Your task to perform on an android device: What's the news in Thailand? Image 0: 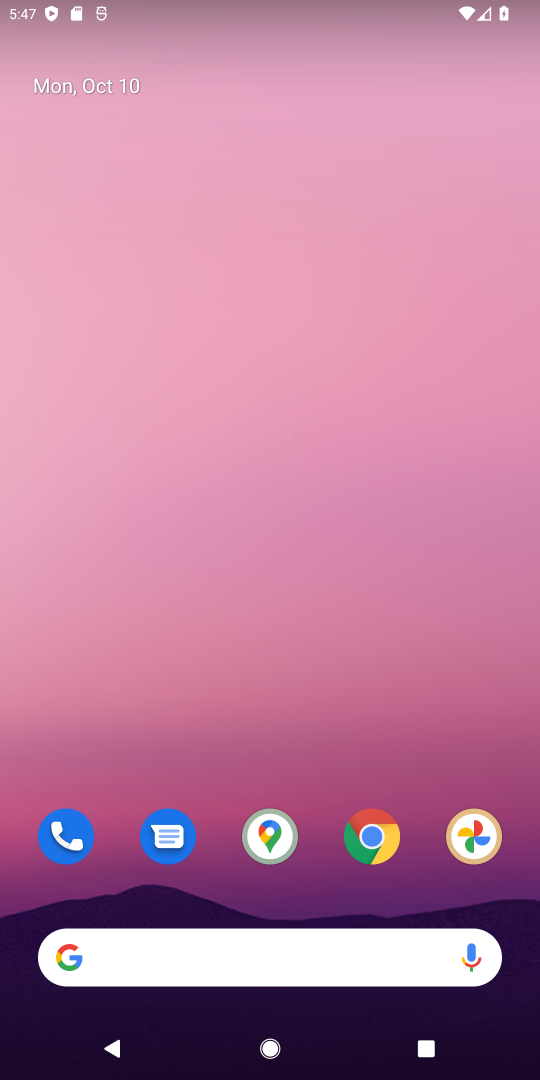
Step 0: click (369, 835)
Your task to perform on an android device: What's the news in Thailand? Image 1: 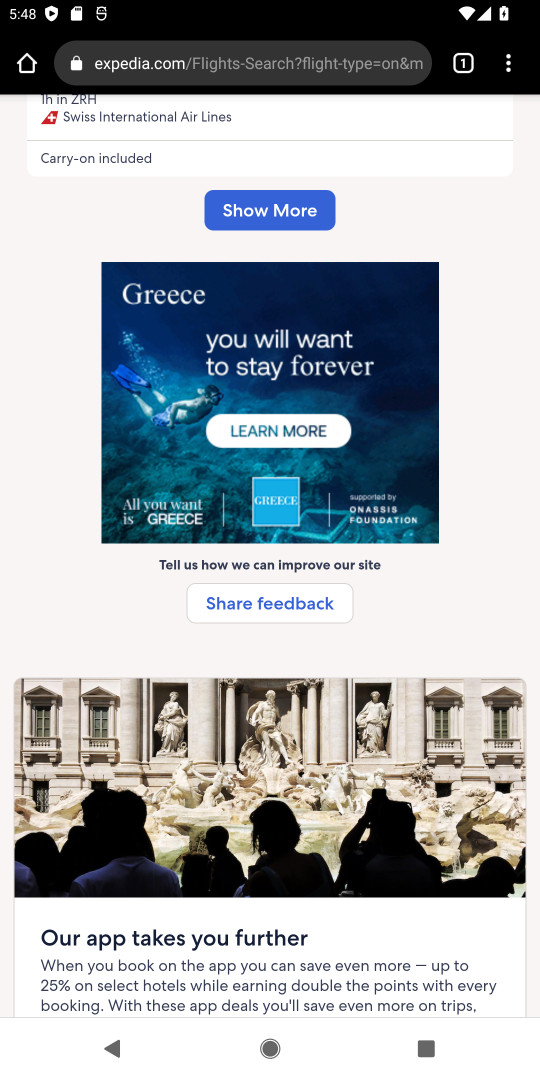
Step 1: click (236, 49)
Your task to perform on an android device: What's the news in Thailand? Image 2: 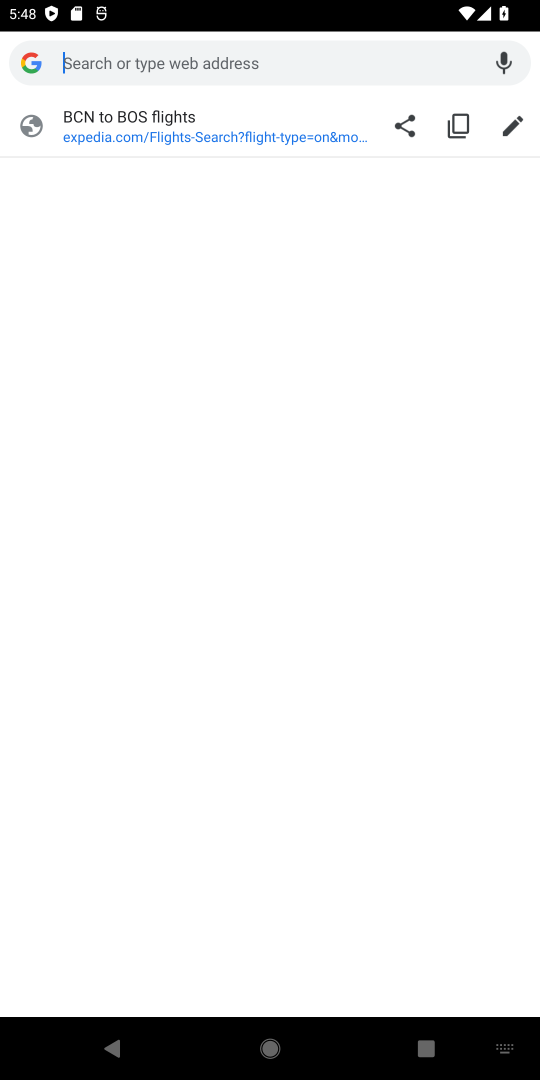
Step 2: type "news in thailand"
Your task to perform on an android device: What's the news in Thailand? Image 3: 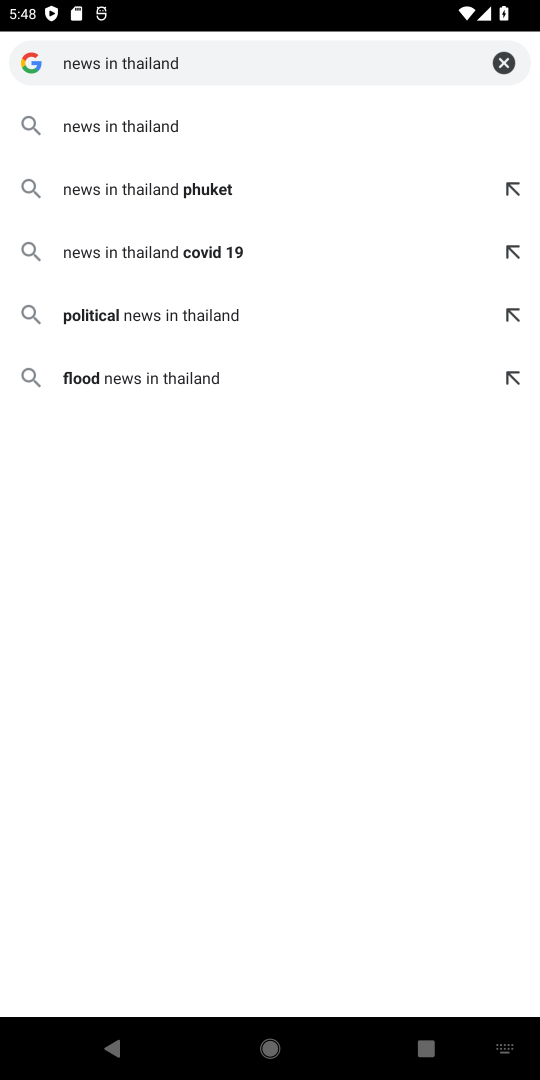
Step 3: click (118, 127)
Your task to perform on an android device: What's the news in Thailand? Image 4: 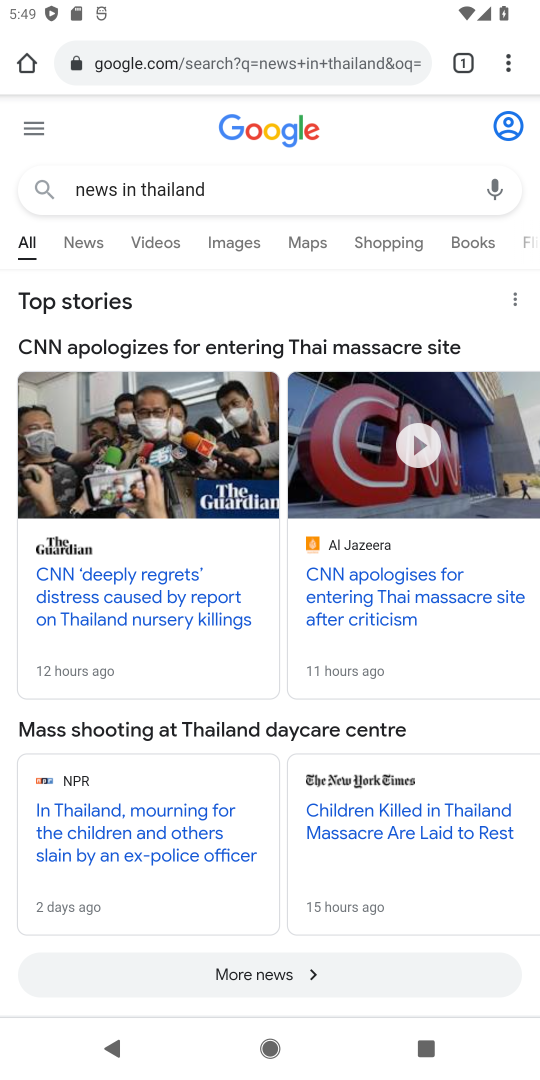
Step 4: drag from (287, 872) to (286, 176)
Your task to perform on an android device: What's the news in Thailand? Image 5: 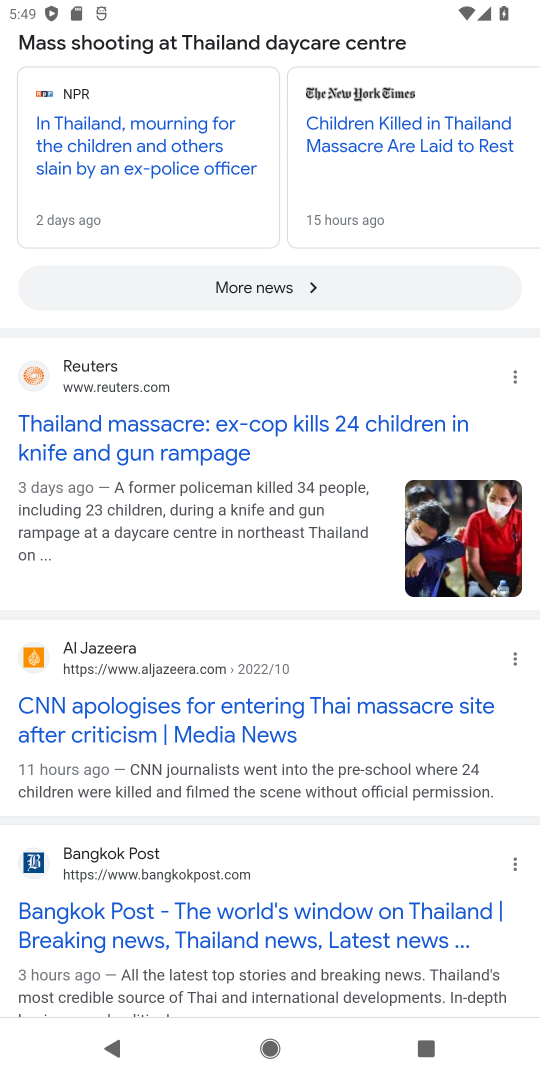
Step 5: click (103, 430)
Your task to perform on an android device: What's the news in Thailand? Image 6: 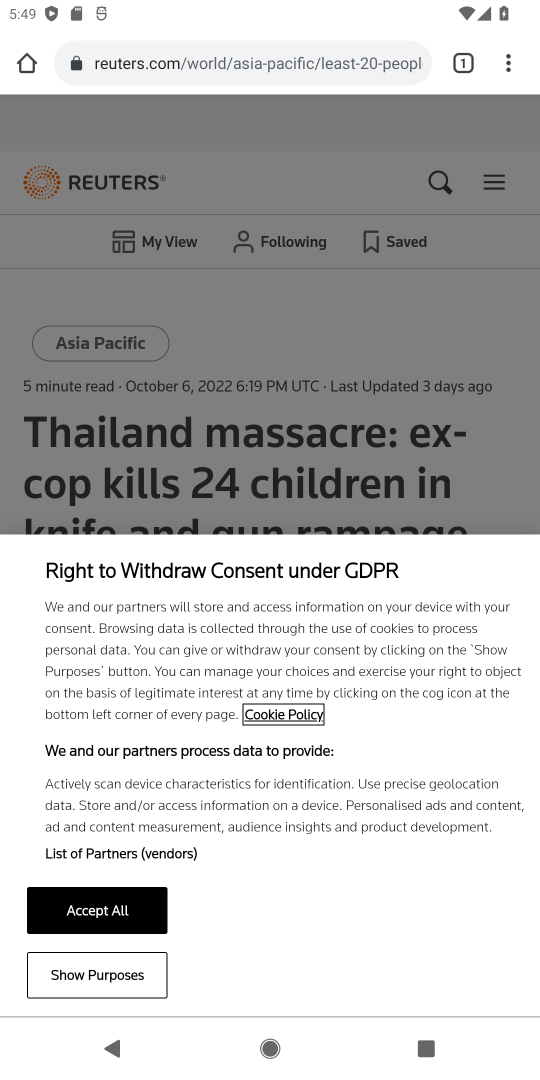
Step 6: click (97, 903)
Your task to perform on an android device: What's the news in Thailand? Image 7: 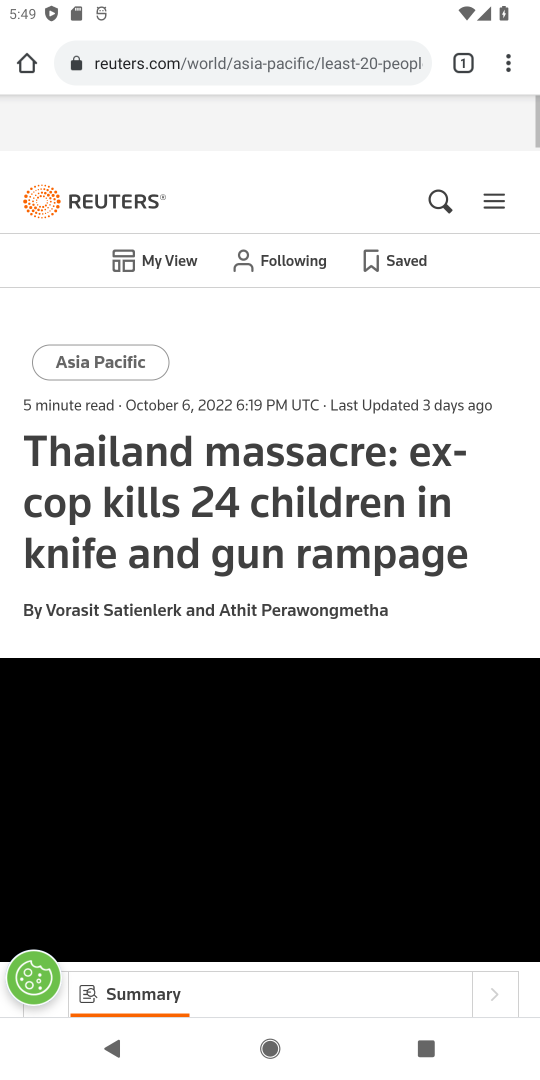
Step 7: task complete